Your task to perform on an android device: turn pop-ups off in chrome Image 0: 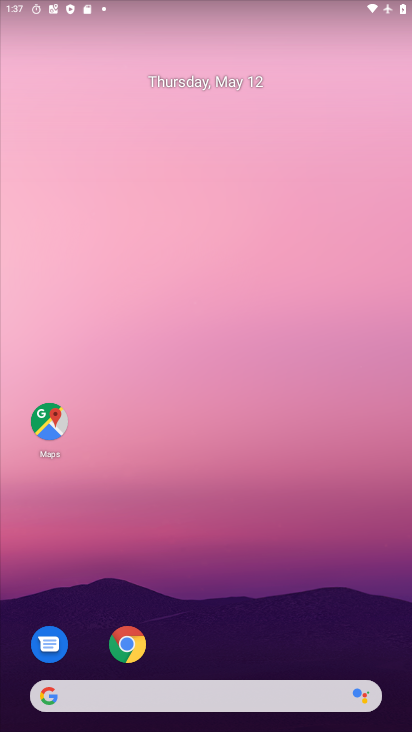
Step 0: click (127, 640)
Your task to perform on an android device: turn pop-ups off in chrome Image 1: 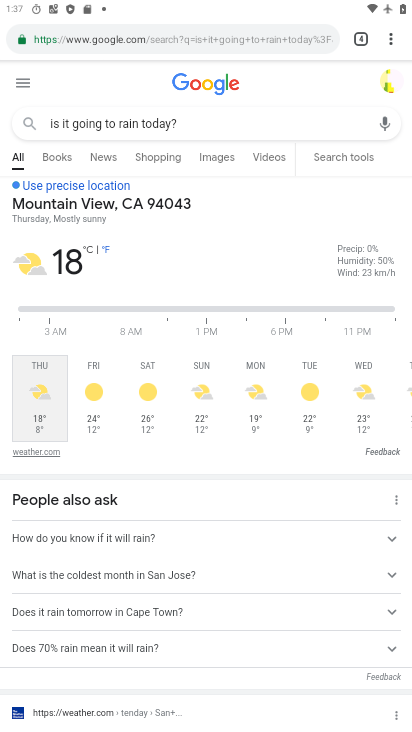
Step 1: click (392, 33)
Your task to perform on an android device: turn pop-ups off in chrome Image 2: 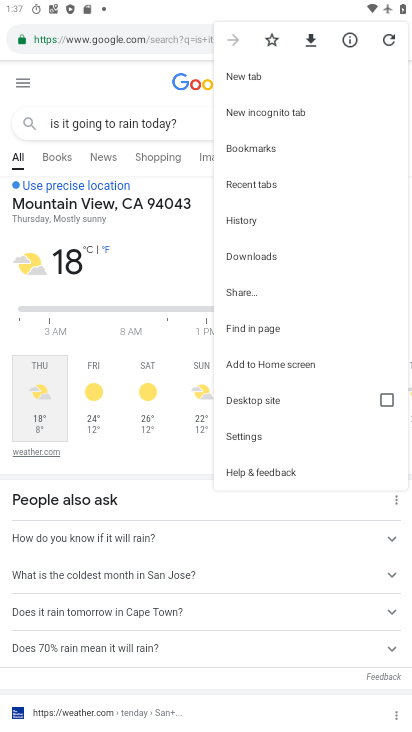
Step 2: click (271, 435)
Your task to perform on an android device: turn pop-ups off in chrome Image 3: 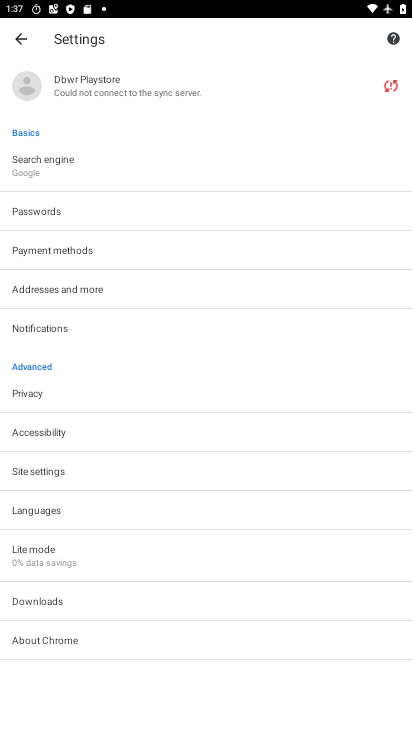
Step 3: click (80, 473)
Your task to perform on an android device: turn pop-ups off in chrome Image 4: 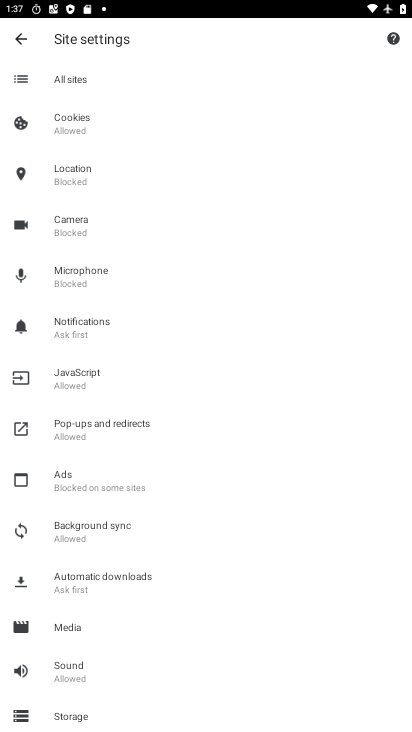
Step 4: click (126, 431)
Your task to perform on an android device: turn pop-ups off in chrome Image 5: 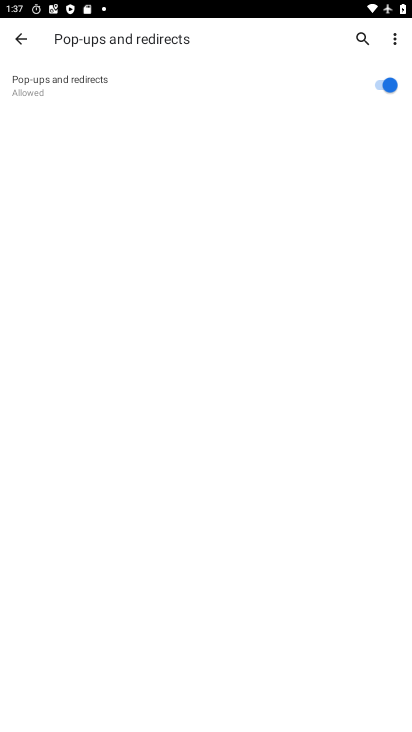
Step 5: click (386, 84)
Your task to perform on an android device: turn pop-ups off in chrome Image 6: 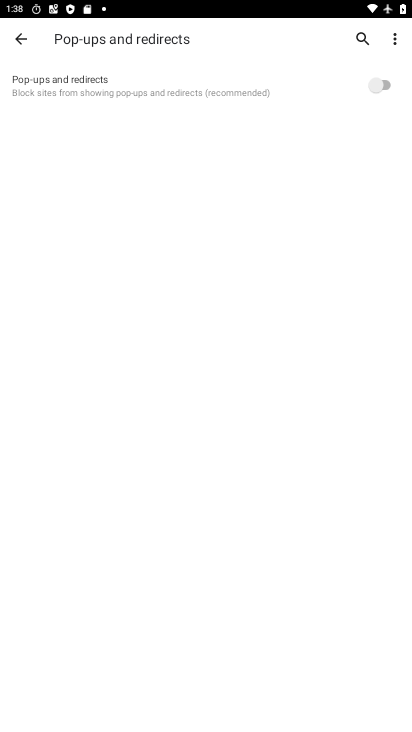
Step 6: task complete